Your task to perform on an android device: Is it going to rain tomorrow? Image 0: 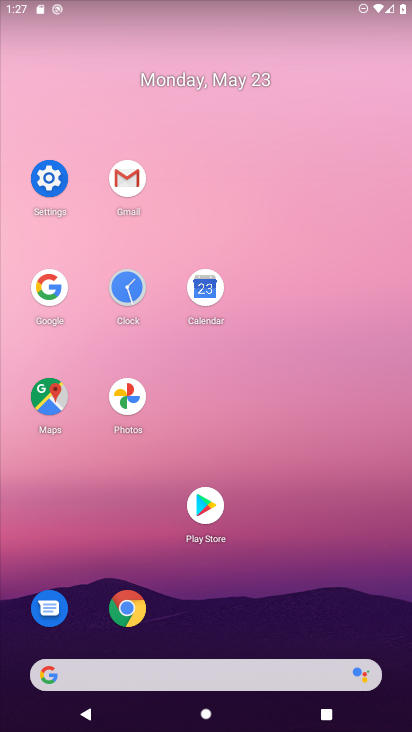
Step 0: click (52, 283)
Your task to perform on an android device: Is it going to rain tomorrow? Image 1: 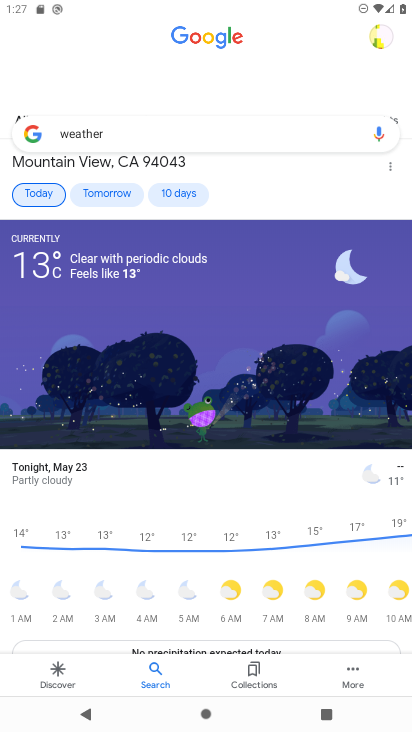
Step 1: click (117, 196)
Your task to perform on an android device: Is it going to rain tomorrow? Image 2: 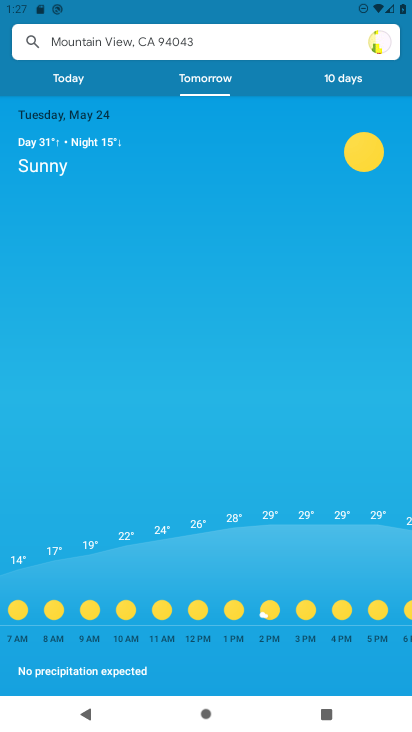
Step 2: task complete